Your task to perform on an android device: toggle show notifications on the lock screen Image 0: 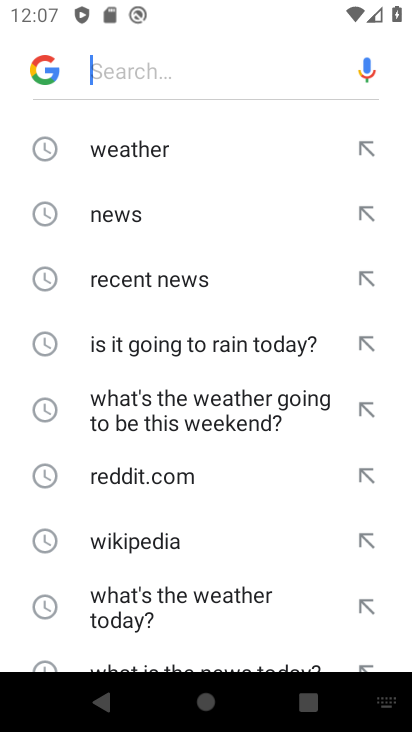
Step 0: press home button
Your task to perform on an android device: toggle show notifications on the lock screen Image 1: 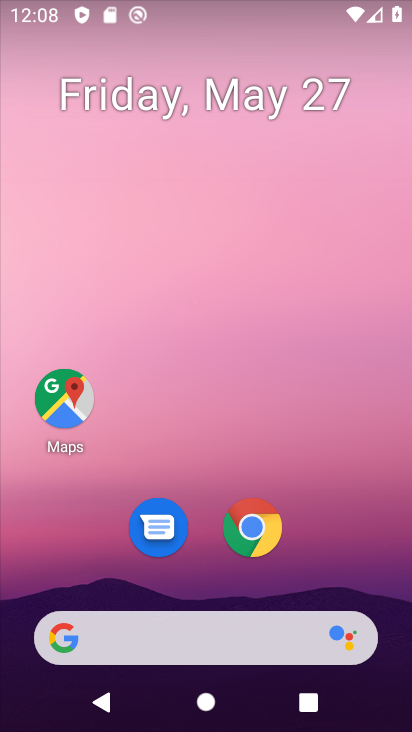
Step 1: drag from (251, 702) to (226, 39)
Your task to perform on an android device: toggle show notifications on the lock screen Image 2: 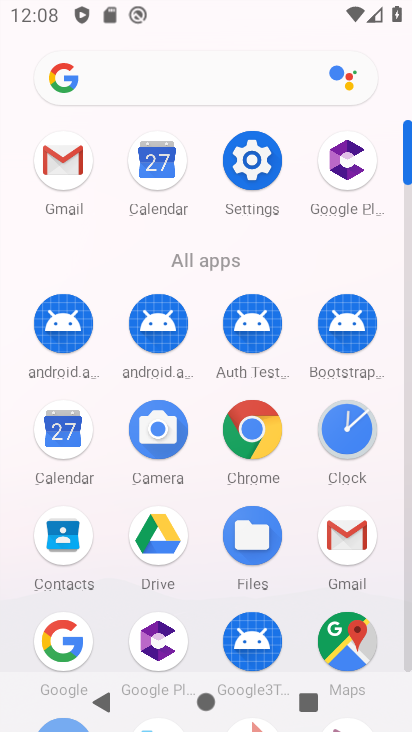
Step 2: click (267, 155)
Your task to perform on an android device: toggle show notifications on the lock screen Image 3: 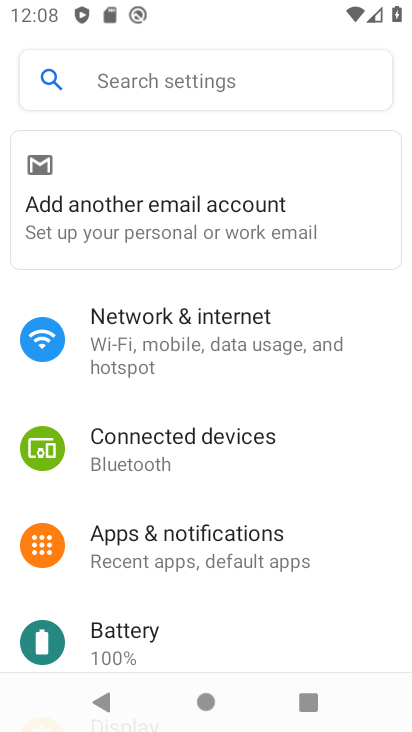
Step 3: drag from (246, 572) to (210, 182)
Your task to perform on an android device: toggle show notifications on the lock screen Image 4: 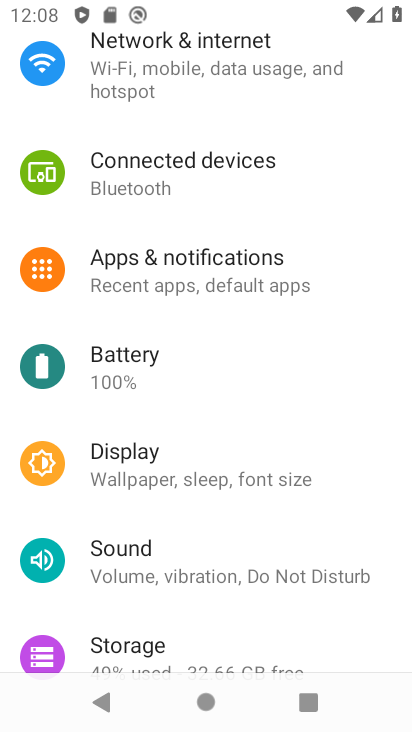
Step 4: click (240, 264)
Your task to perform on an android device: toggle show notifications on the lock screen Image 5: 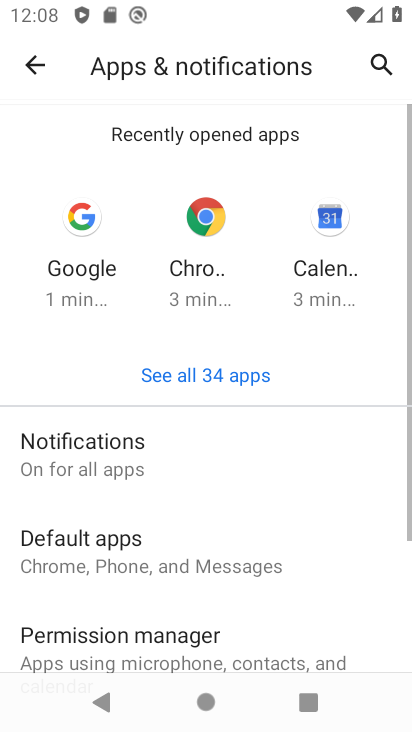
Step 5: click (188, 439)
Your task to perform on an android device: toggle show notifications on the lock screen Image 6: 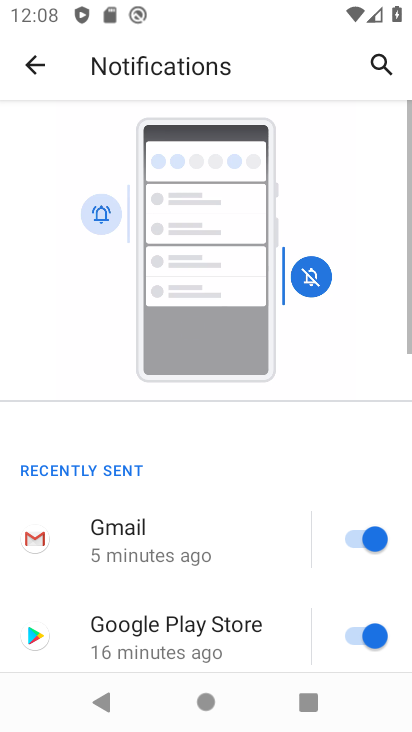
Step 6: drag from (304, 566) to (233, 62)
Your task to perform on an android device: toggle show notifications on the lock screen Image 7: 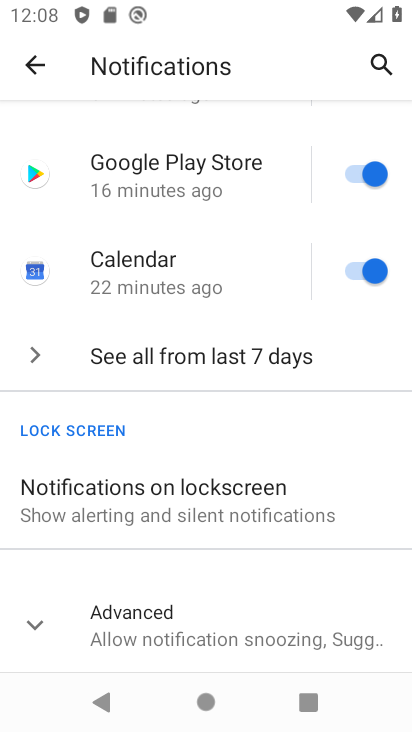
Step 7: click (246, 505)
Your task to perform on an android device: toggle show notifications on the lock screen Image 8: 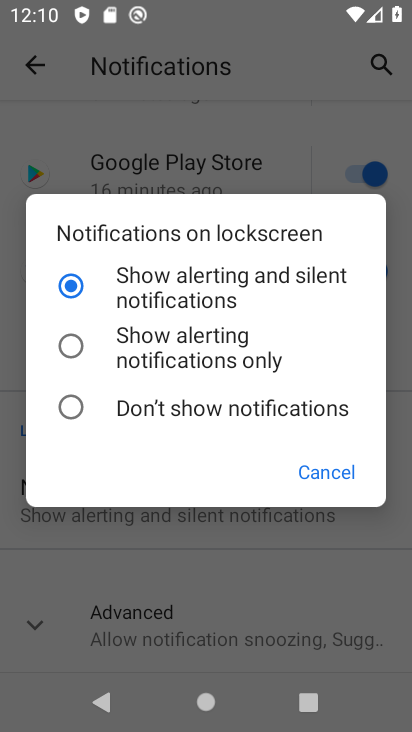
Step 8: click (222, 391)
Your task to perform on an android device: toggle show notifications on the lock screen Image 9: 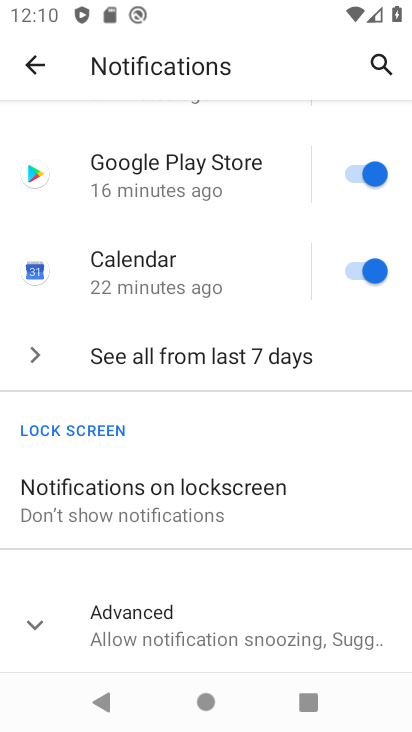
Step 9: task complete